Your task to perform on an android device: Clear the cart on ebay.com. Search for razer blade on ebay.com, select the first entry, and add it to the cart. Image 0: 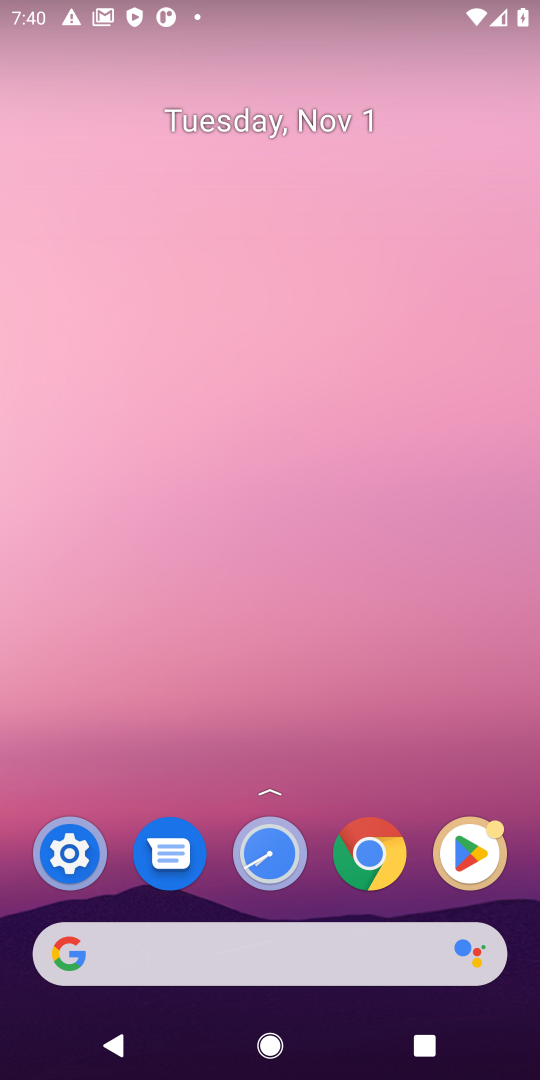
Step 0: click (249, 963)
Your task to perform on an android device: Clear the cart on ebay.com. Search for razer blade on ebay.com, select the first entry, and add it to the cart. Image 1: 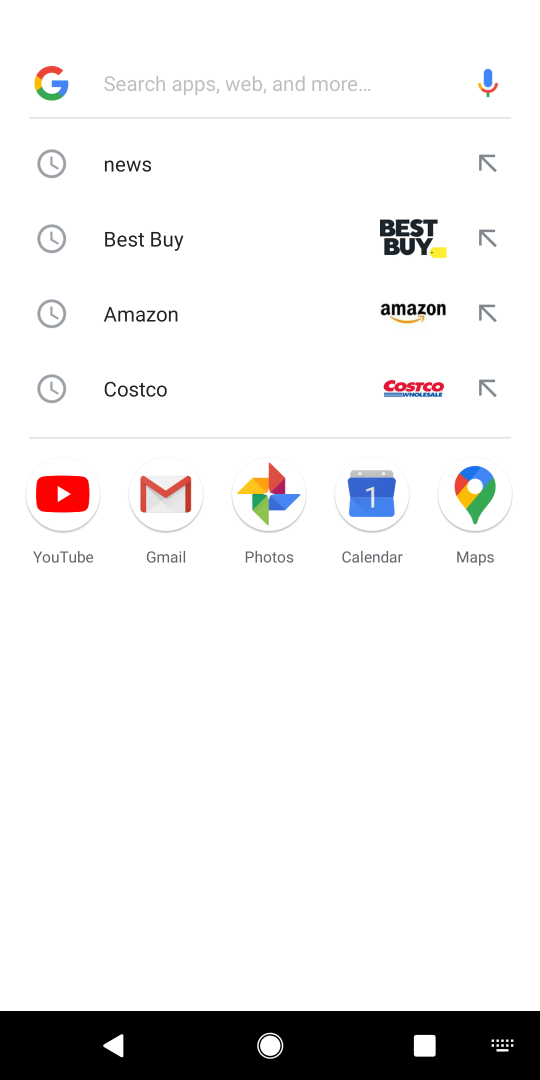
Step 1: type "ebay.com"
Your task to perform on an android device: Clear the cart on ebay.com. Search for razer blade on ebay.com, select the first entry, and add it to the cart. Image 2: 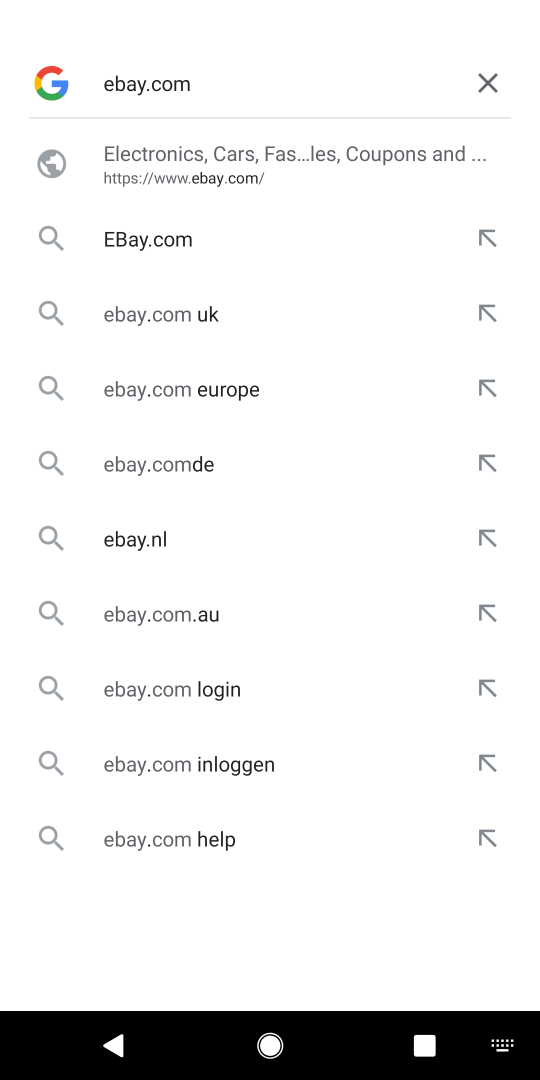
Step 2: type ""
Your task to perform on an android device: Clear the cart on ebay.com. Search for razer blade on ebay.com, select the first entry, and add it to the cart. Image 3: 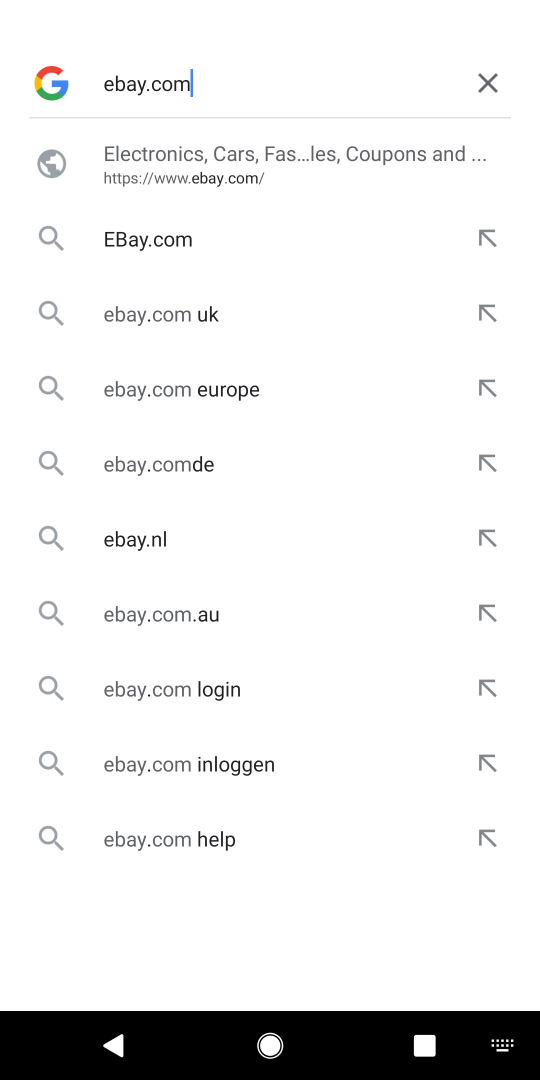
Step 3: click (210, 167)
Your task to perform on an android device: Clear the cart on ebay.com. Search for razer blade on ebay.com, select the first entry, and add it to the cart. Image 4: 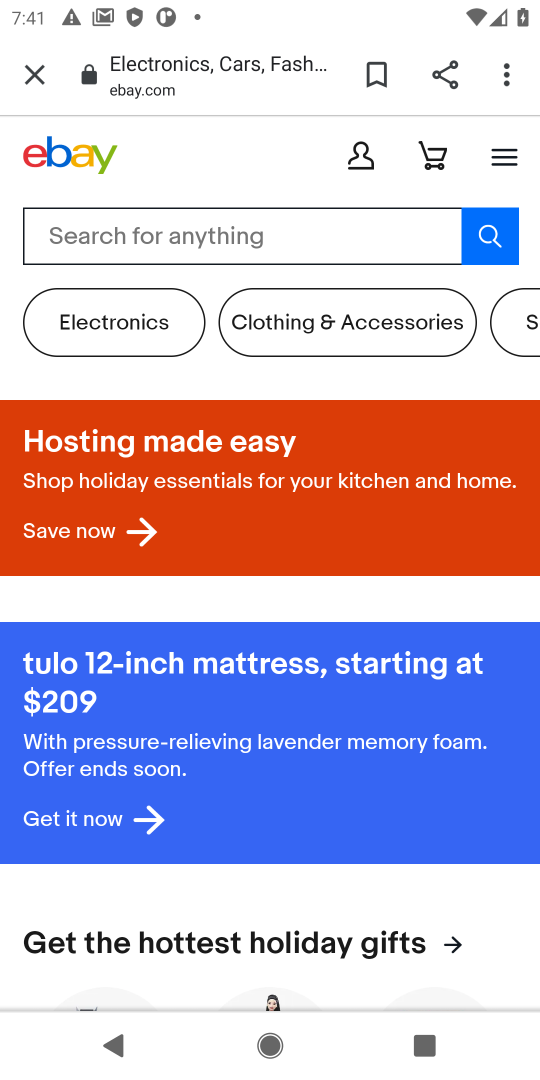
Step 4: click (199, 236)
Your task to perform on an android device: Clear the cart on ebay.com. Search for razer blade on ebay.com, select the first entry, and add it to the cart. Image 5: 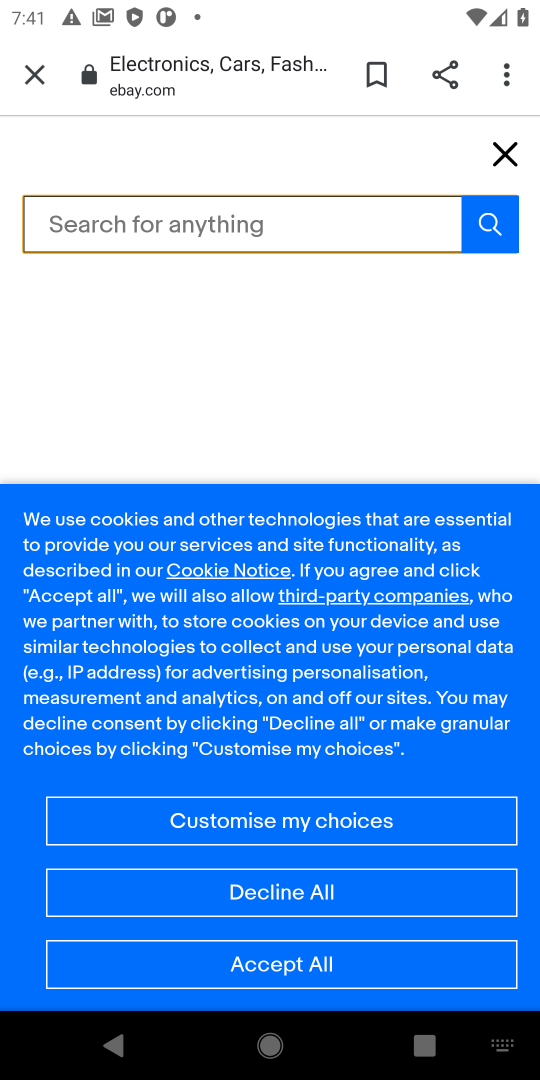
Step 5: type "razer blade"
Your task to perform on an android device: Clear the cart on ebay.com. Search for razer blade on ebay.com, select the first entry, and add it to the cart. Image 6: 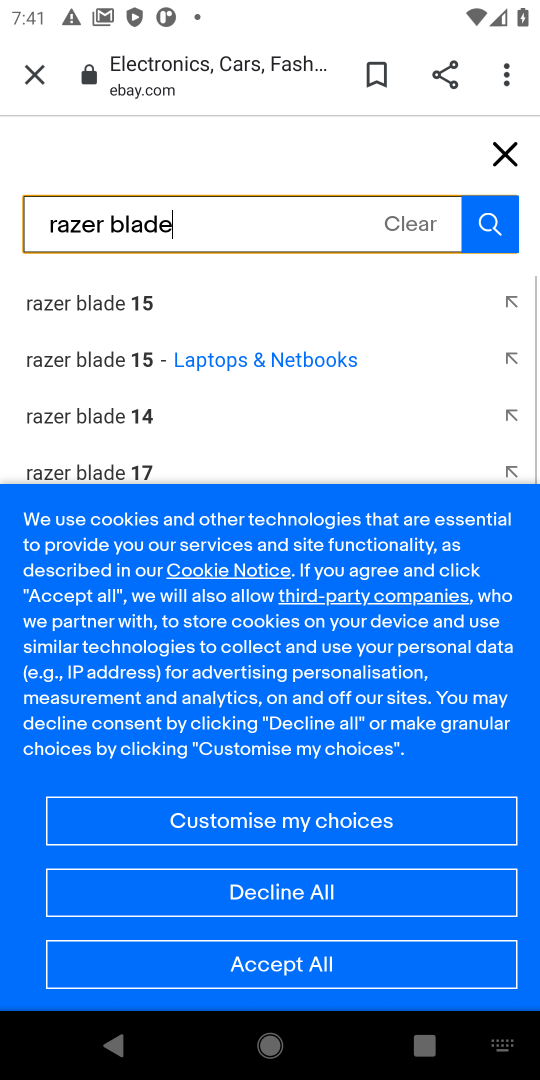
Step 6: type ""
Your task to perform on an android device: Clear the cart on ebay.com. Search for razer blade on ebay.com, select the first entry, and add it to the cart. Image 7: 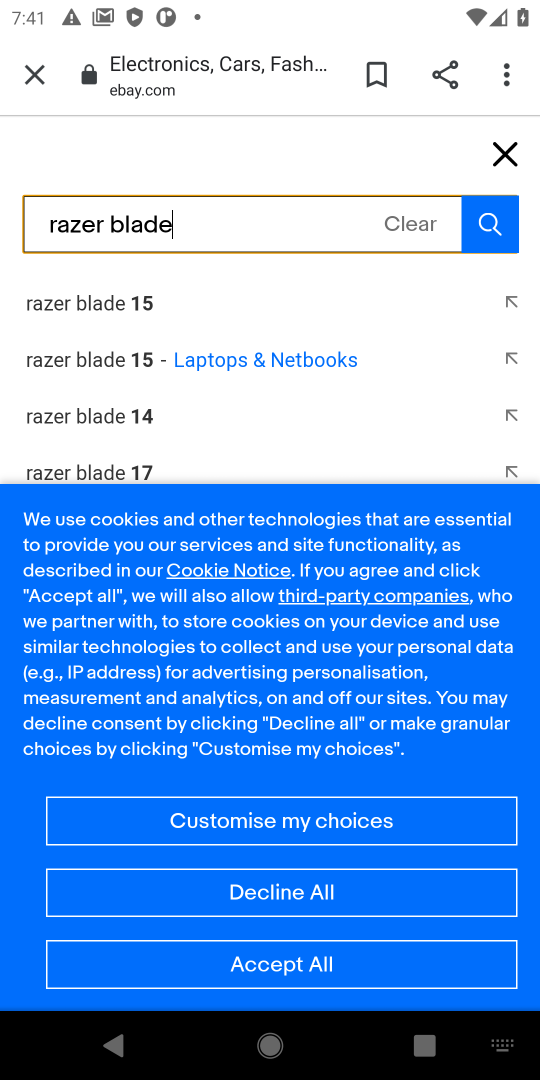
Step 7: click (488, 226)
Your task to perform on an android device: Clear the cart on ebay.com. Search for razer blade on ebay.com, select the first entry, and add it to the cart. Image 8: 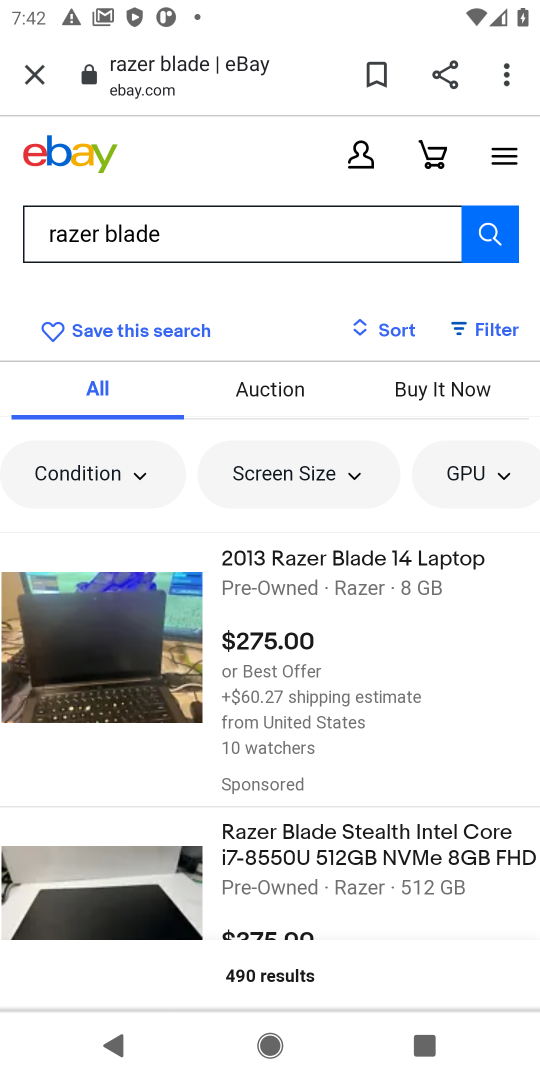
Step 8: click (377, 629)
Your task to perform on an android device: Clear the cart on ebay.com. Search for razer blade on ebay.com, select the first entry, and add it to the cart. Image 9: 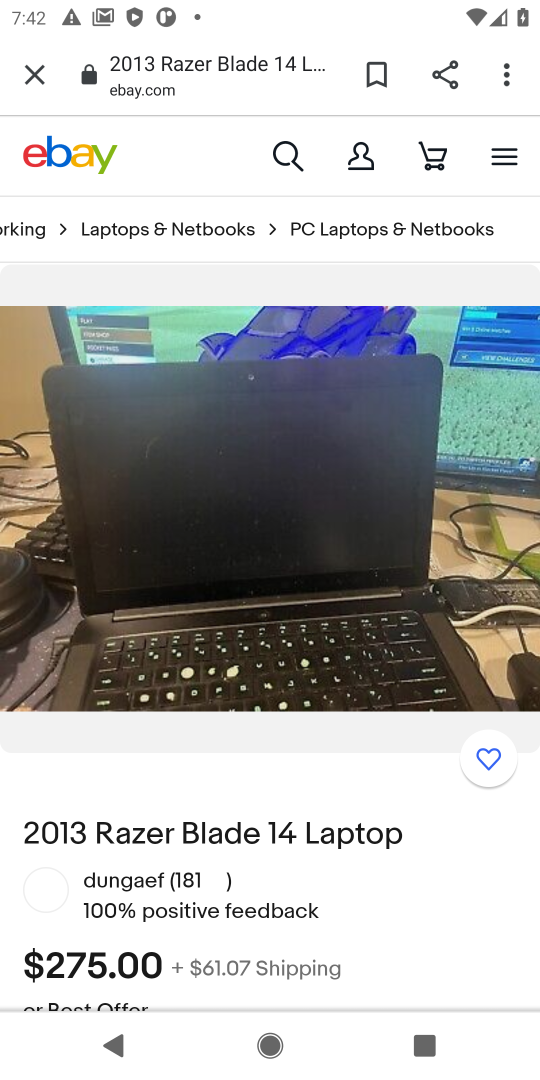
Step 9: drag from (344, 843) to (400, 379)
Your task to perform on an android device: Clear the cart on ebay.com. Search for razer blade on ebay.com, select the first entry, and add it to the cart. Image 10: 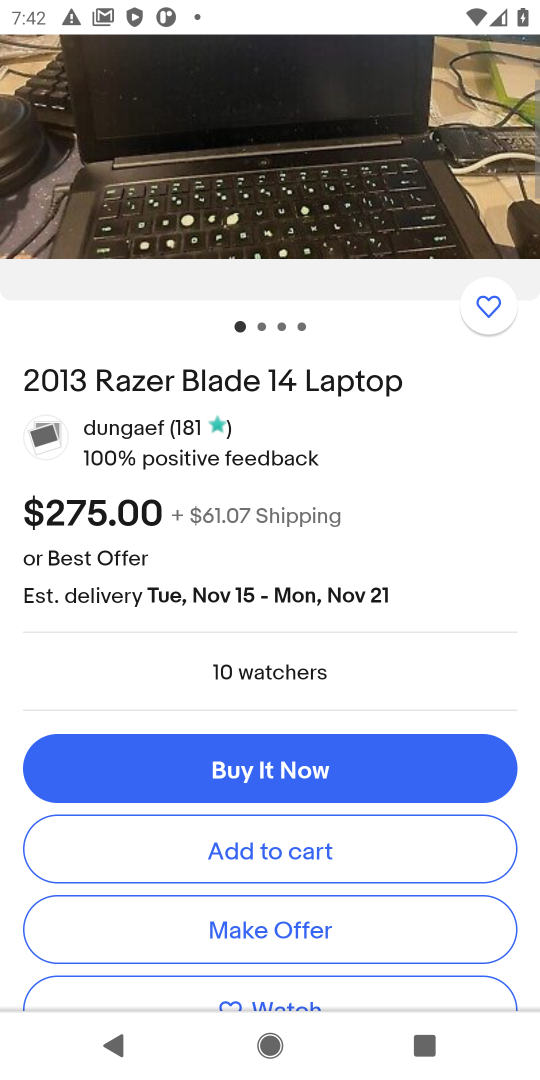
Step 10: drag from (344, 920) to (412, 726)
Your task to perform on an android device: Clear the cart on ebay.com. Search for razer blade on ebay.com, select the first entry, and add it to the cart. Image 11: 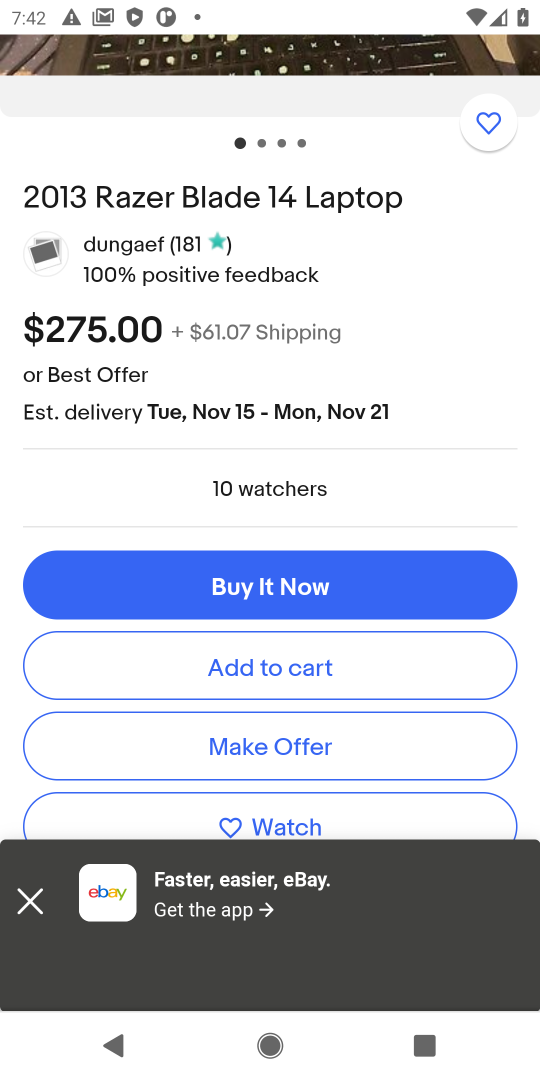
Step 11: click (314, 663)
Your task to perform on an android device: Clear the cart on ebay.com. Search for razer blade on ebay.com, select the first entry, and add it to the cart. Image 12: 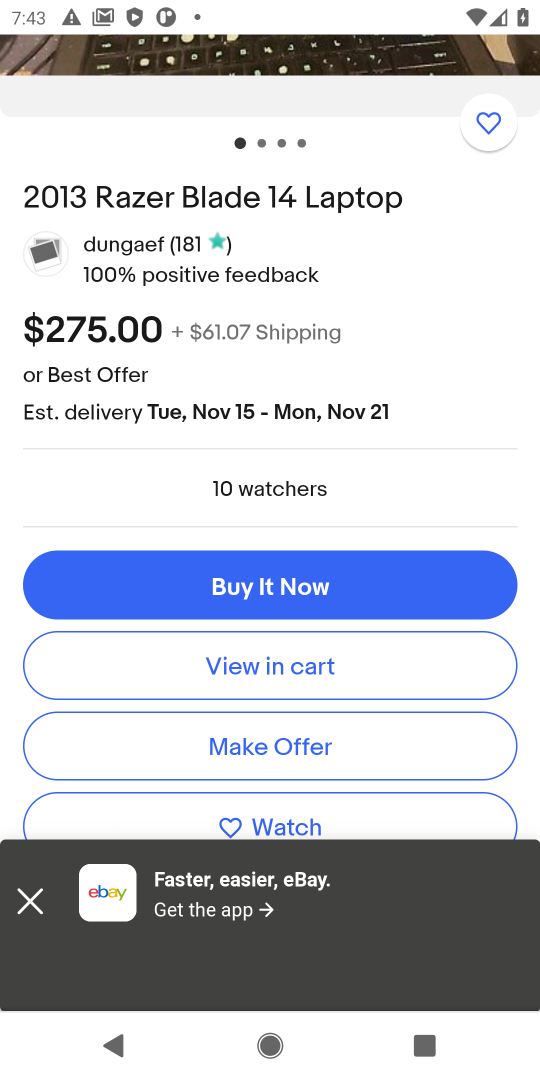
Step 12: task complete